Your task to perform on an android device: open app "Microsoft Excel" (install if not already installed) Image 0: 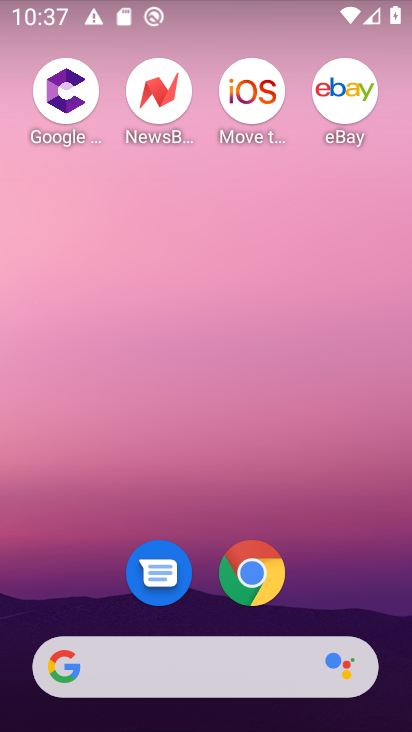
Step 0: press home button
Your task to perform on an android device: open app "Microsoft Excel" (install if not already installed) Image 1: 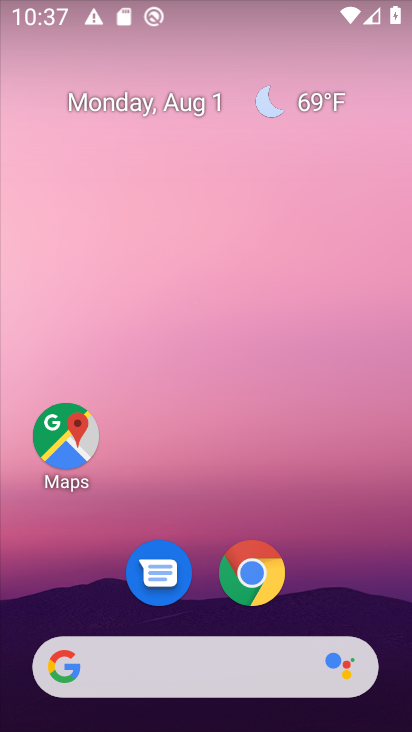
Step 1: drag from (342, 578) to (312, 82)
Your task to perform on an android device: open app "Microsoft Excel" (install if not already installed) Image 2: 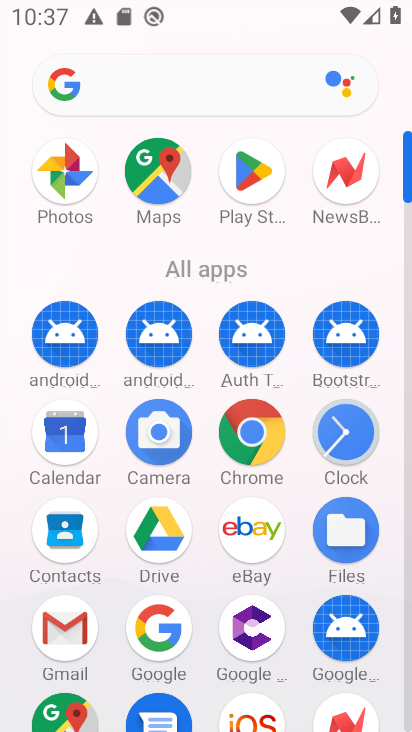
Step 2: drag from (388, 669) to (383, 322)
Your task to perform on an android device: open app "Microsoft Excel" (install if not already installed) Image 3: 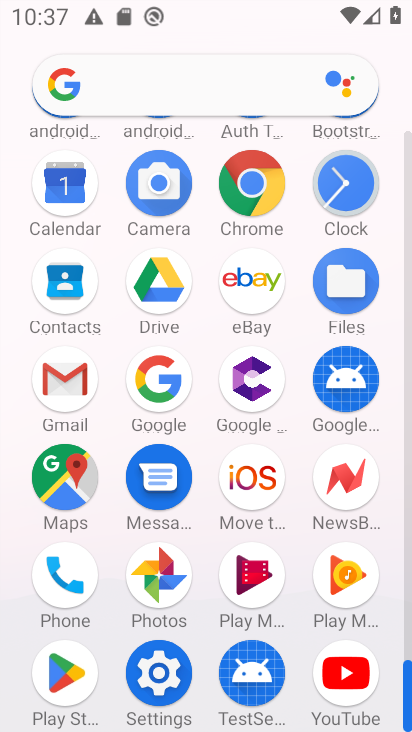
Step 3: click (65, 662)
Your task to perform on an android device: open app "Microsoft Excel" (install if not already installed) Image 4: 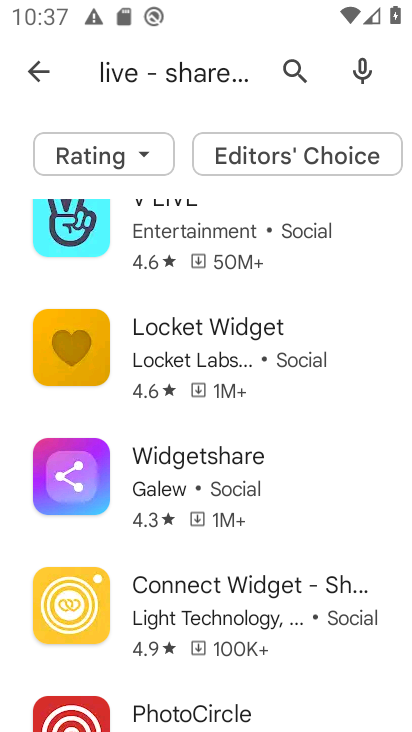
Step 4: click (293, 75)
Your task to perform on an android device: open app "Microsoft Excel" (install if not already installed) Image 5: 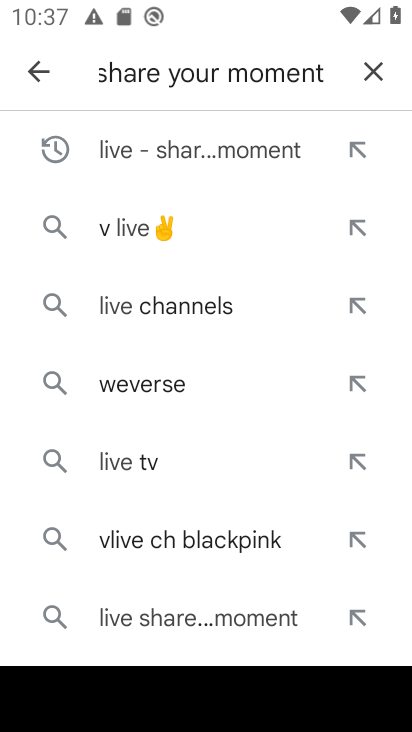
Step 5: click (375, 74)
Your task to perform on an android device: open app "Microsoft Excel" (install if not already installed) Image 6: 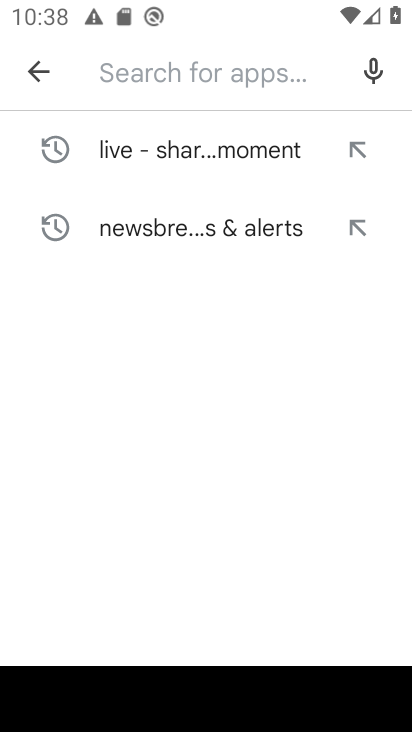
Step 6: type "Microsoft Excel"
Your task to perform on an android device: open app "Microsoft Excel" (install if not already installed) Image 7: 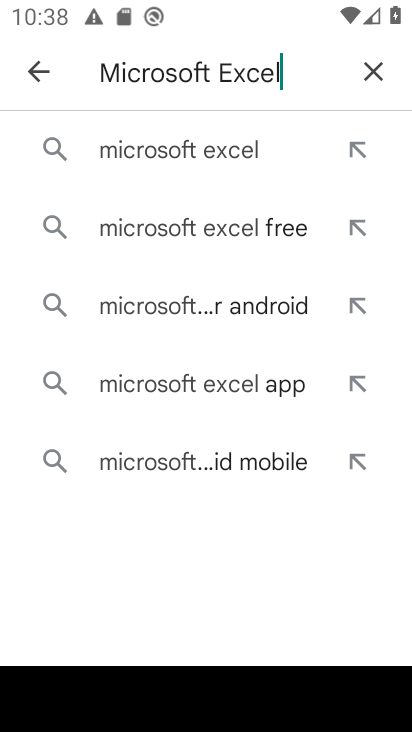
Step 7: click (219, 153)
Your task to perform on an android device: open app "Microsoft Excel" (install if not already installed) Image 8: 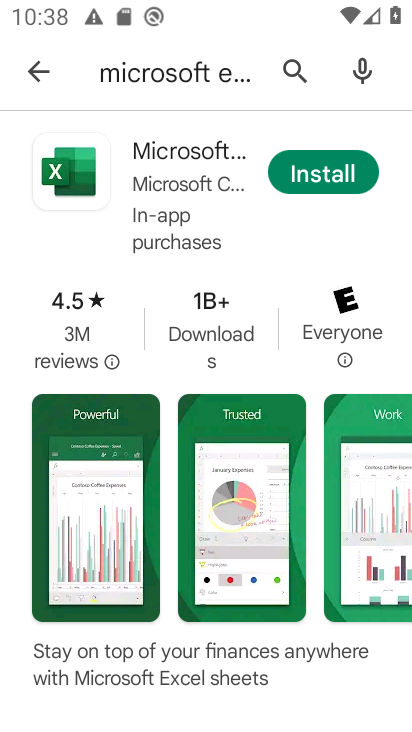
Step 8: click (326, 181)
Your task to perform on an android device: open app "Microsoft Excel" (install if not already installed) Image 9: 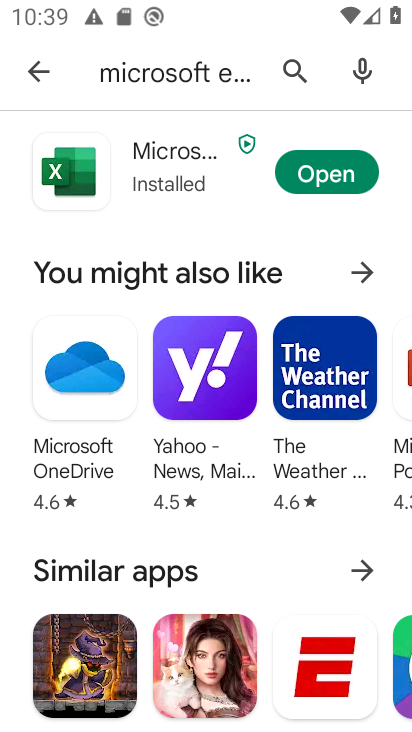
Step 9: task complete